Your task to perform on an android device: Clear the cart on target. Add "macbook pro" to the cart on target, then select checkout. Image 0: 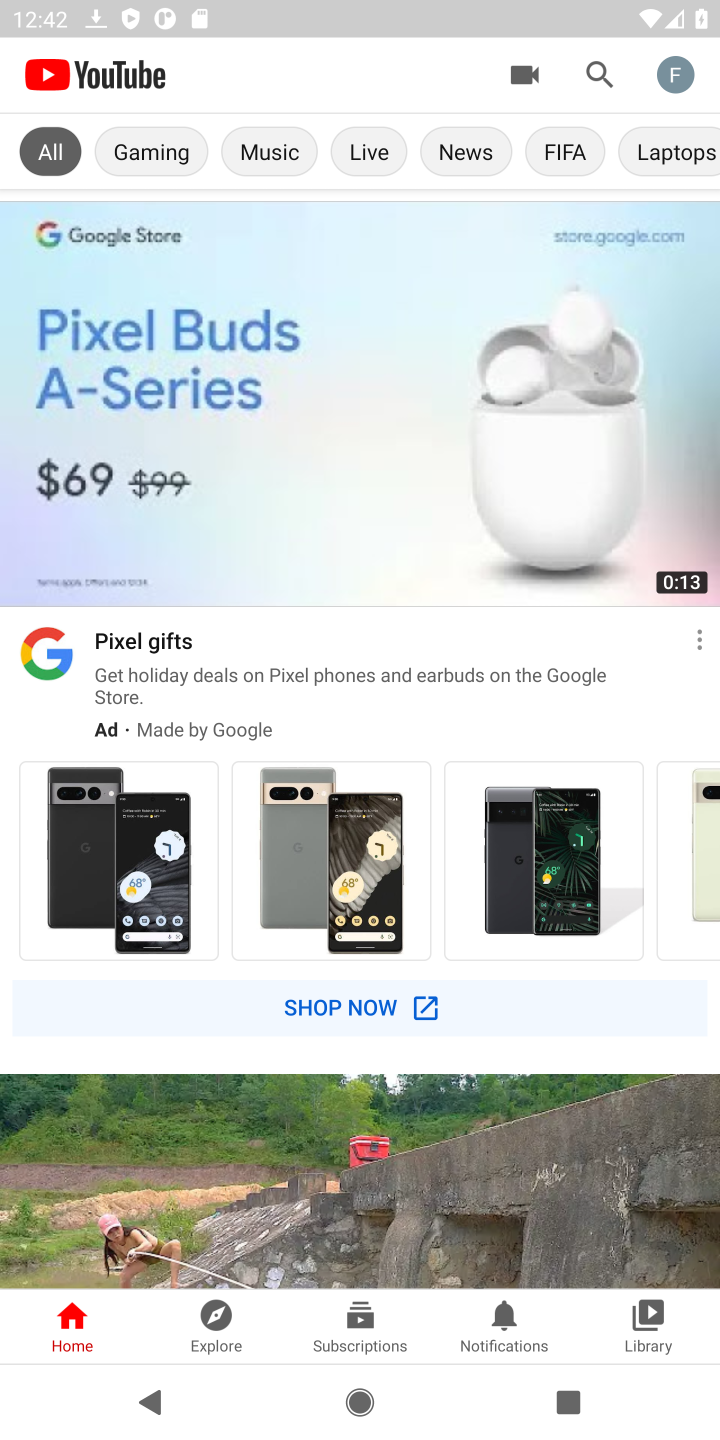
Step 0: press home button
Your task to perform on an android device: Clear the cart on target. Add "macbook pro" to the cart on target, then select checkout. Image 1: 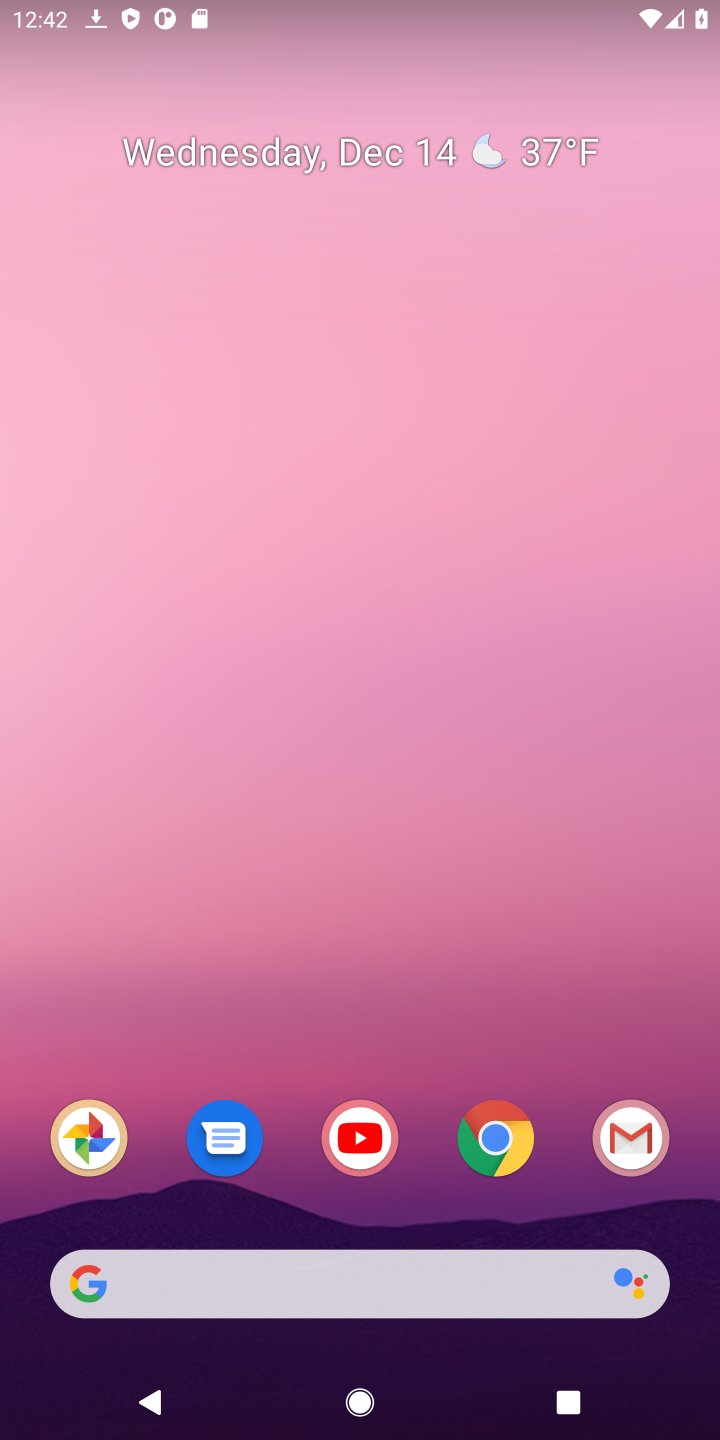
Step 1: click (500, 1140)
Your task to perform on an android device: Clear the cart on target. Add "macbook pro" to the cart on target, then select checkout. Image 2: 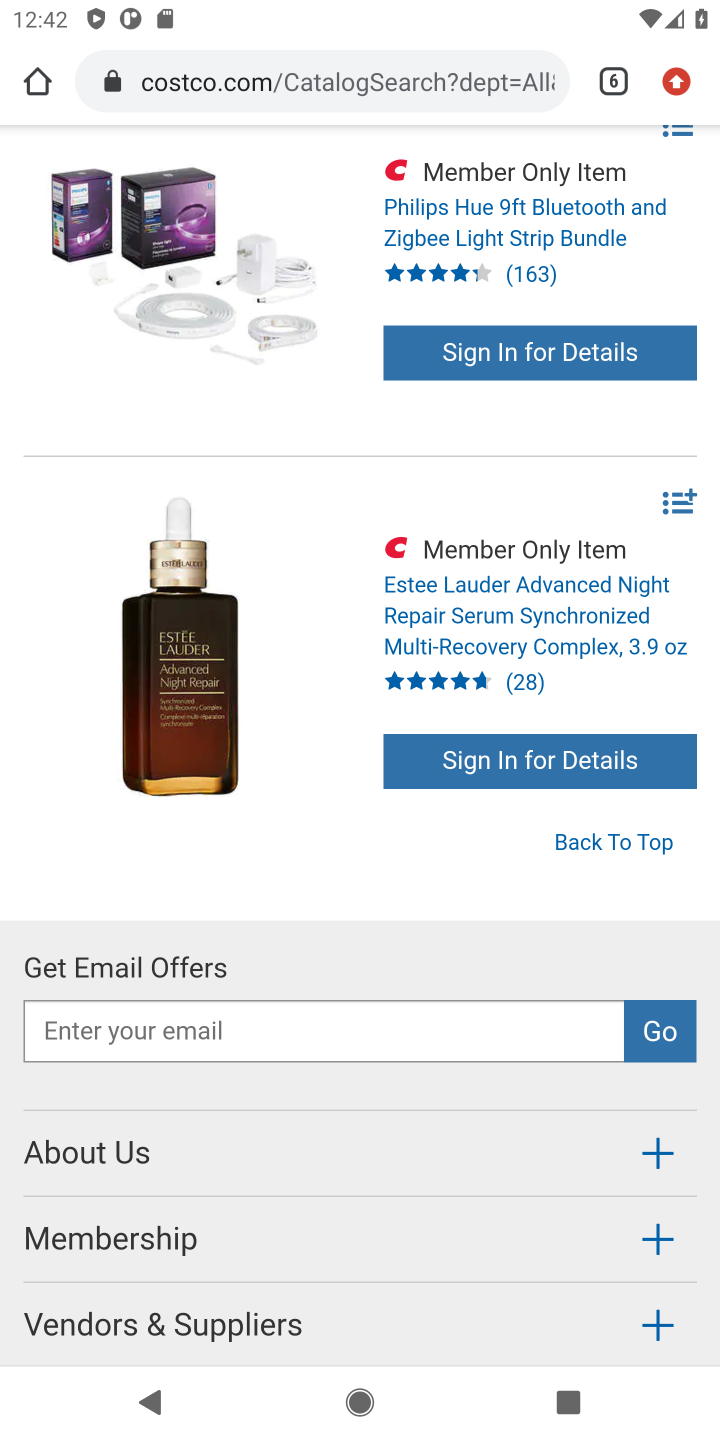
Step 2: click (600, 76)
Your task to perform on an android device: Clear the cart on target. Add "macbook pro" to the cart on target, then select checkout. Image 3: 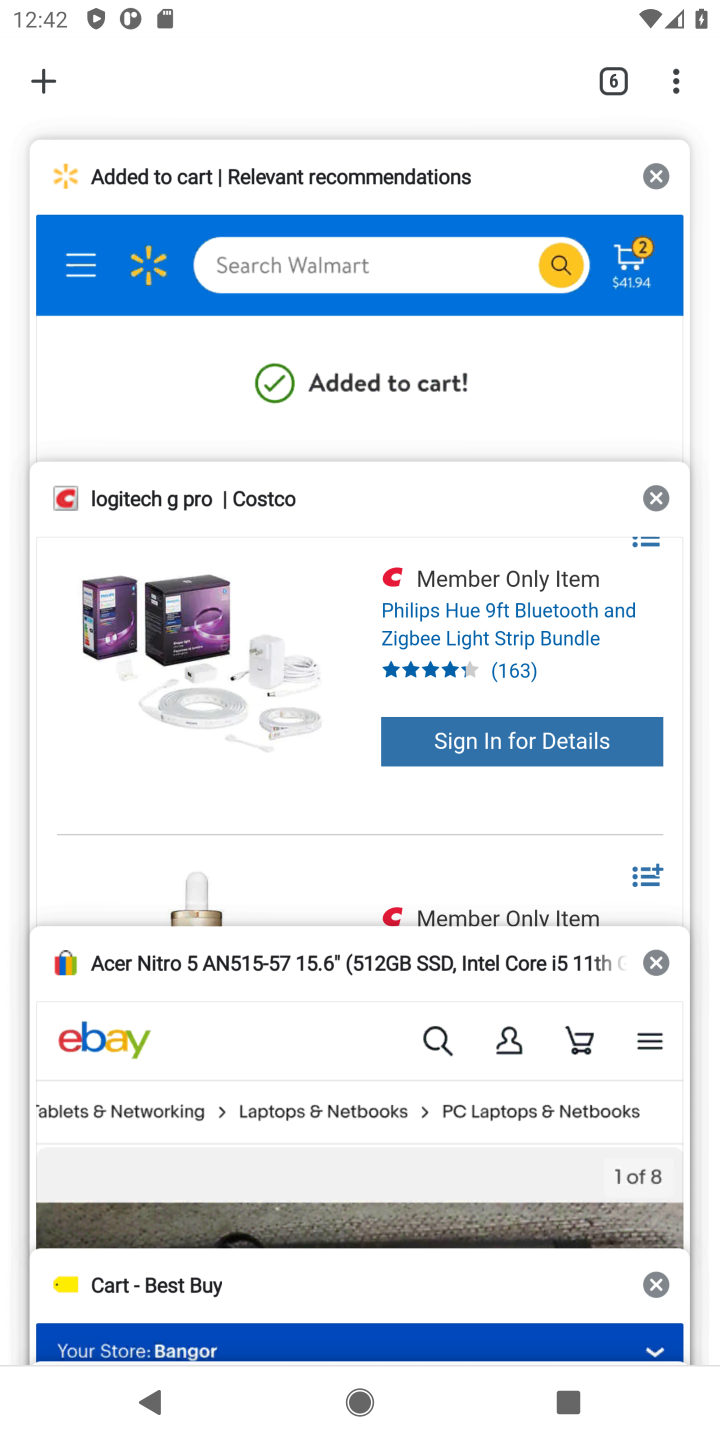
Step 3: drag from (200, 1317) to (294, 719)
Your task to perform on an android device: Clear the cart on target. Add "macbook pro" to the cart on target, then select checkout. Image 4: 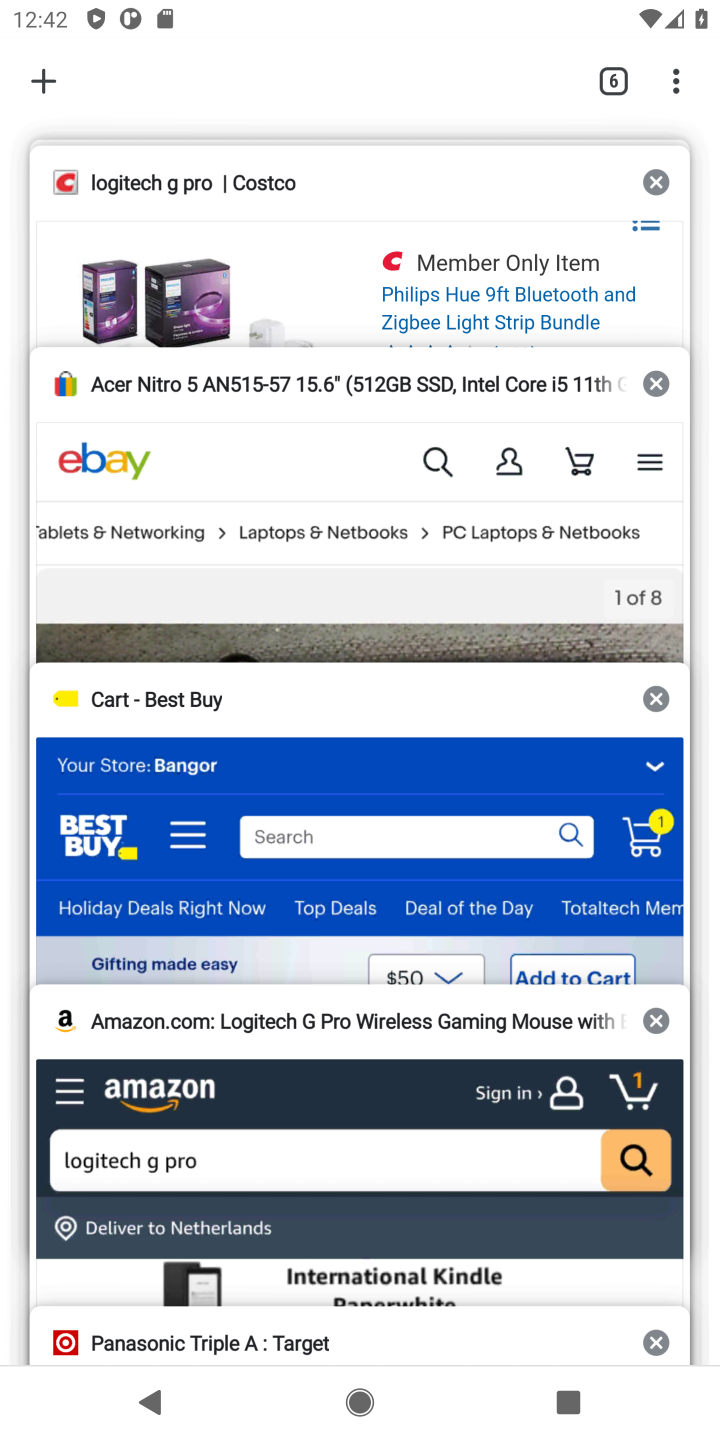
Step 4: drag from (306, 1264) to (459, 868)
Your task to perform on an android device: Clear the cart on target. Add "macbook pro" to the cart on target, then select checkout. Image 5: 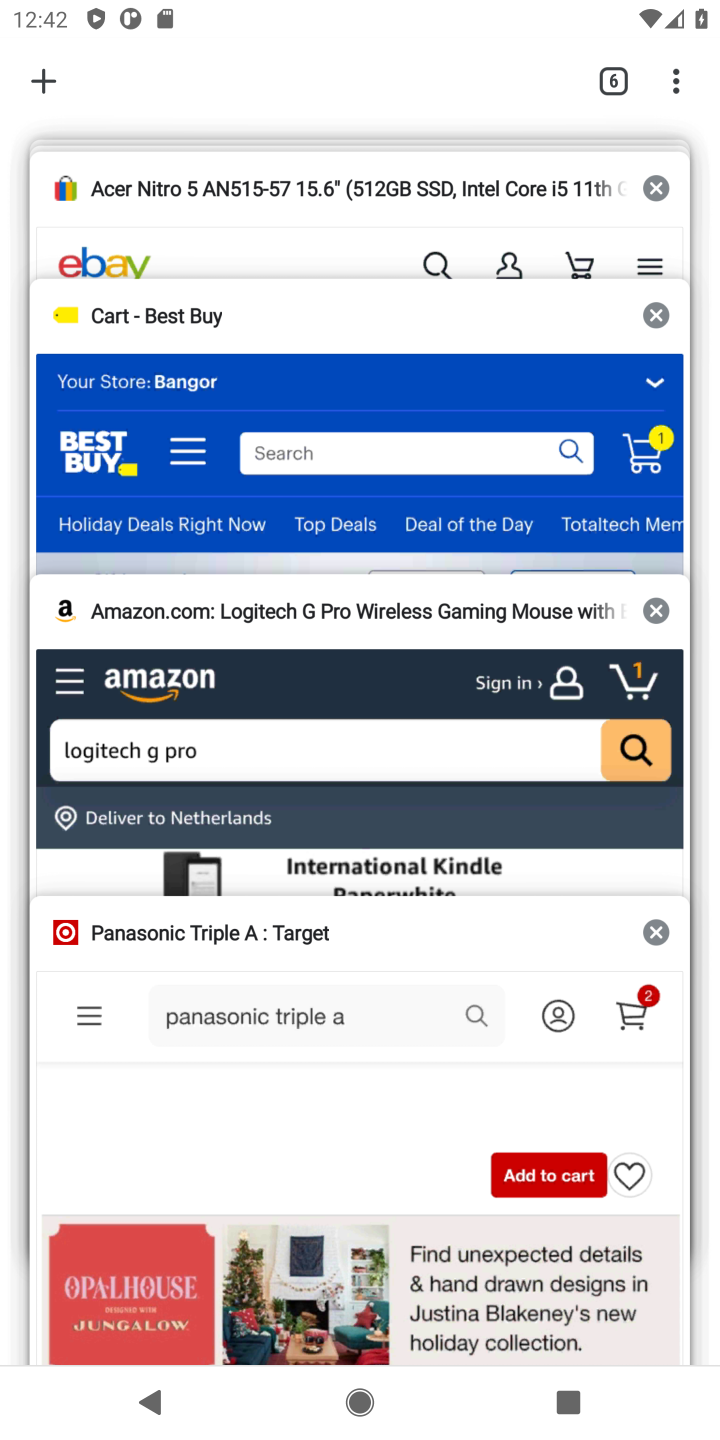
Step 5: click (321, 1080)
Your task to perform on an android device: Clear the cart on target. Add "macbook pro" to the cart on target, then select checkout. Image 6: 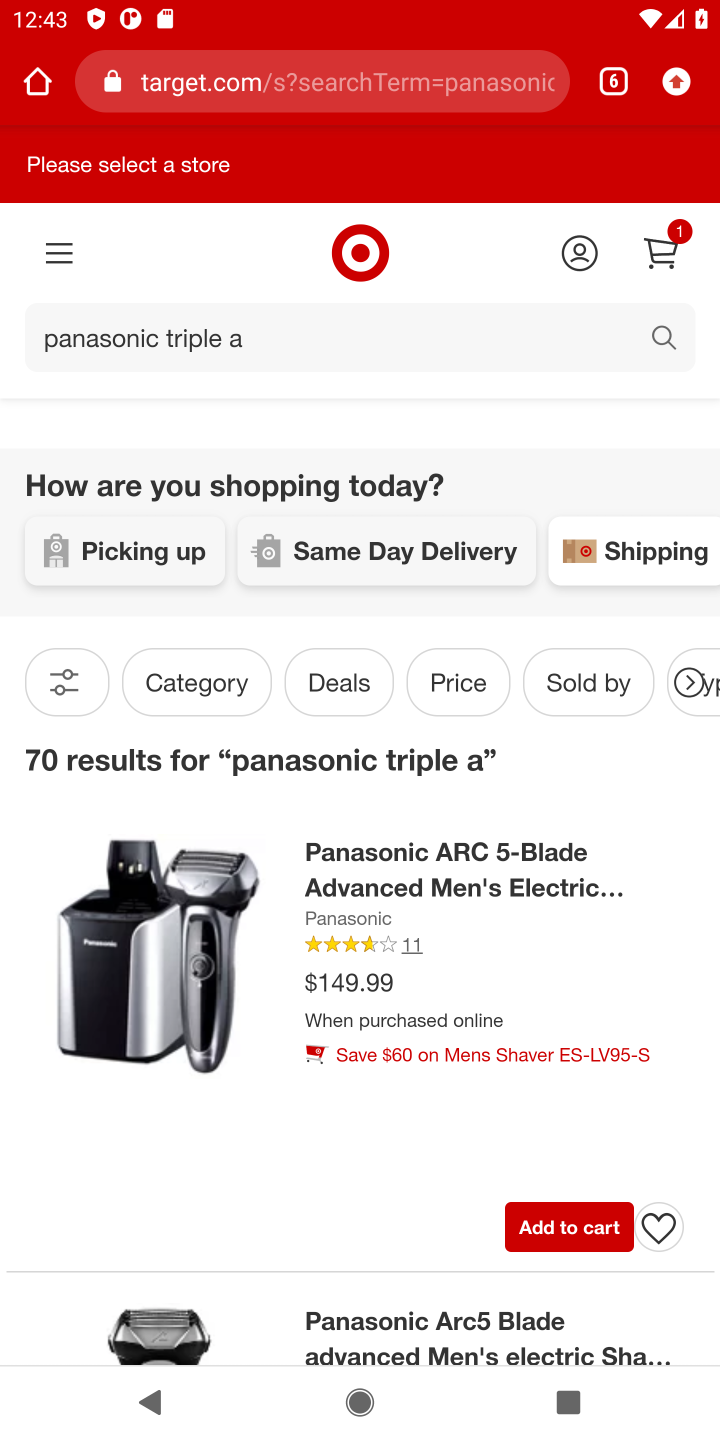
Step 6: click (673, 231)
Your task to perform on an android device: Clear the cart on target. Add "macbook pro" to the cart on target, then select checkout. Image 7: 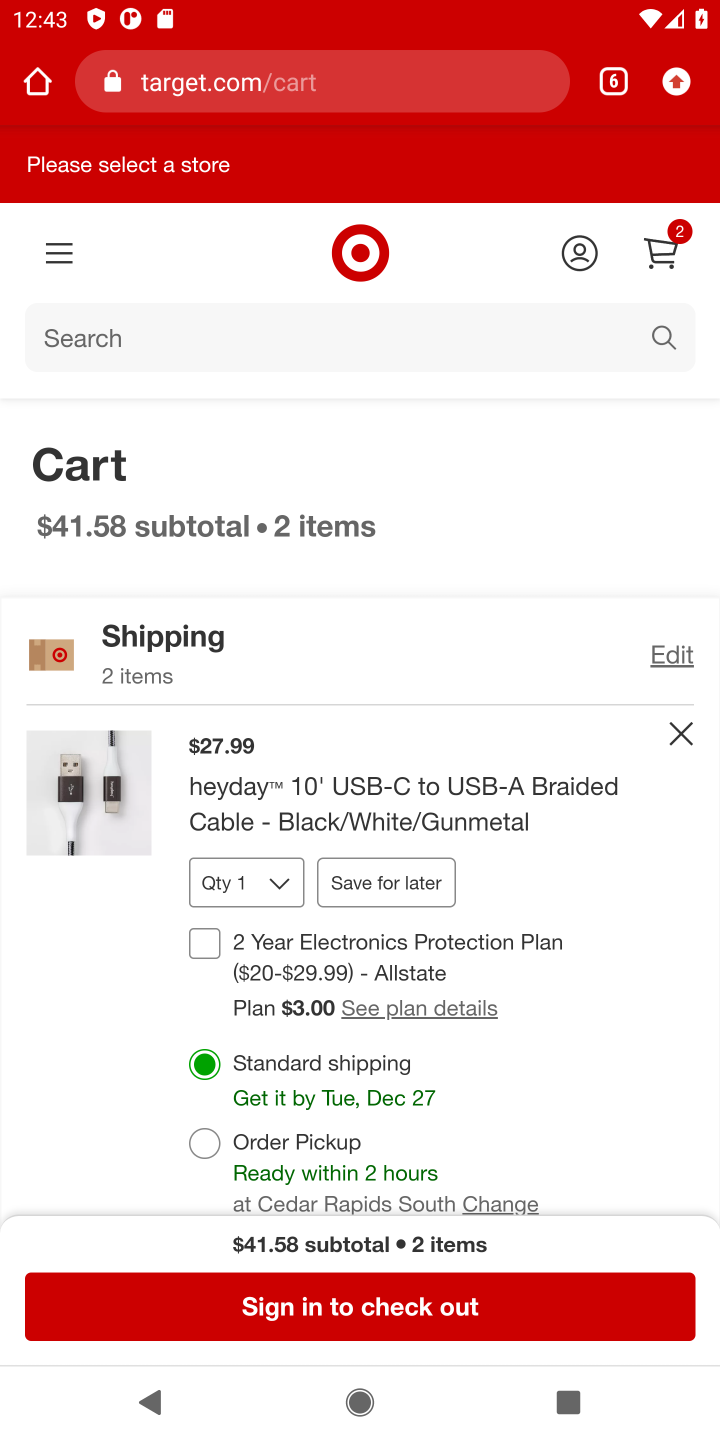
Step 7: click (682, 735)
Your task to perform on an android device: Clear the cart on target. Add "macbook pro" to the cart on target, then select checkout. Image 8: 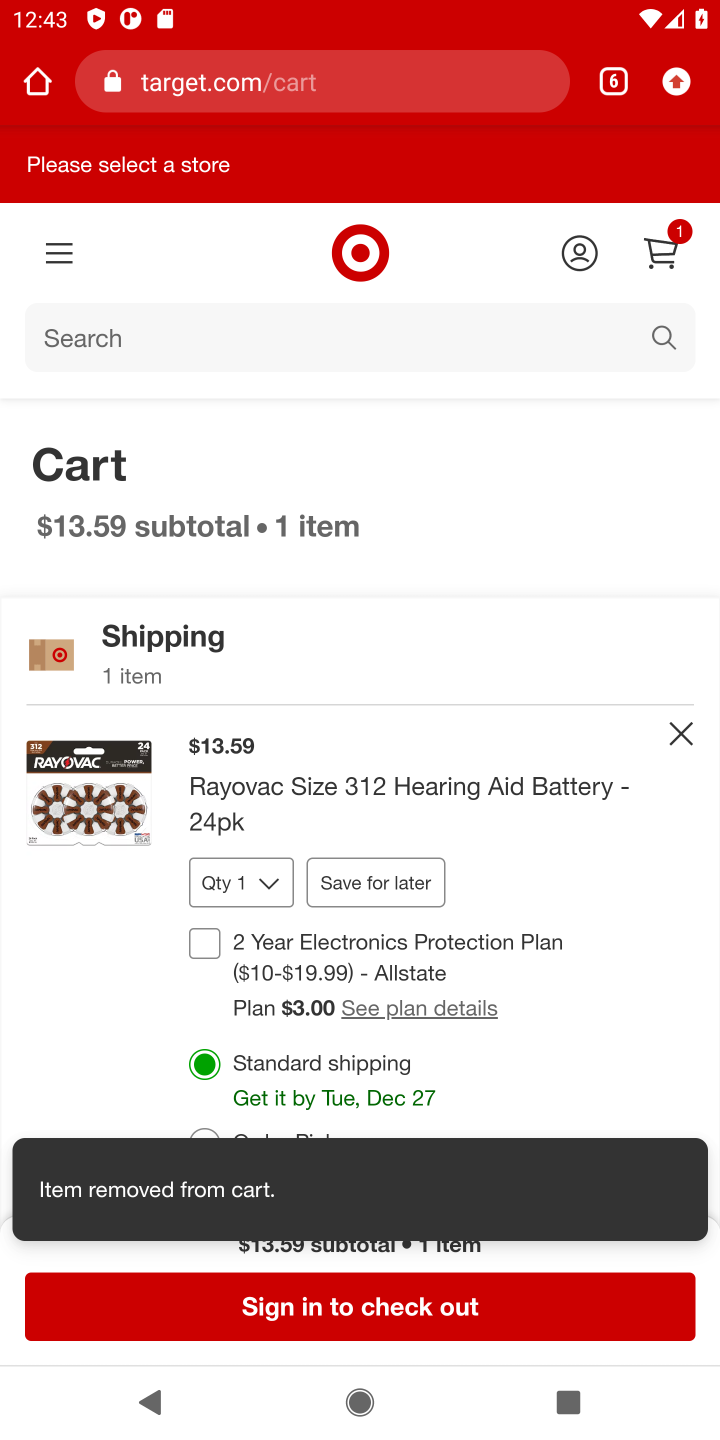
Step 8: click (678, 734)
Your task to perform on an android device: Clear the cart on target. Add "macbook pro" to the cart on target, then select checkout. Image 9: 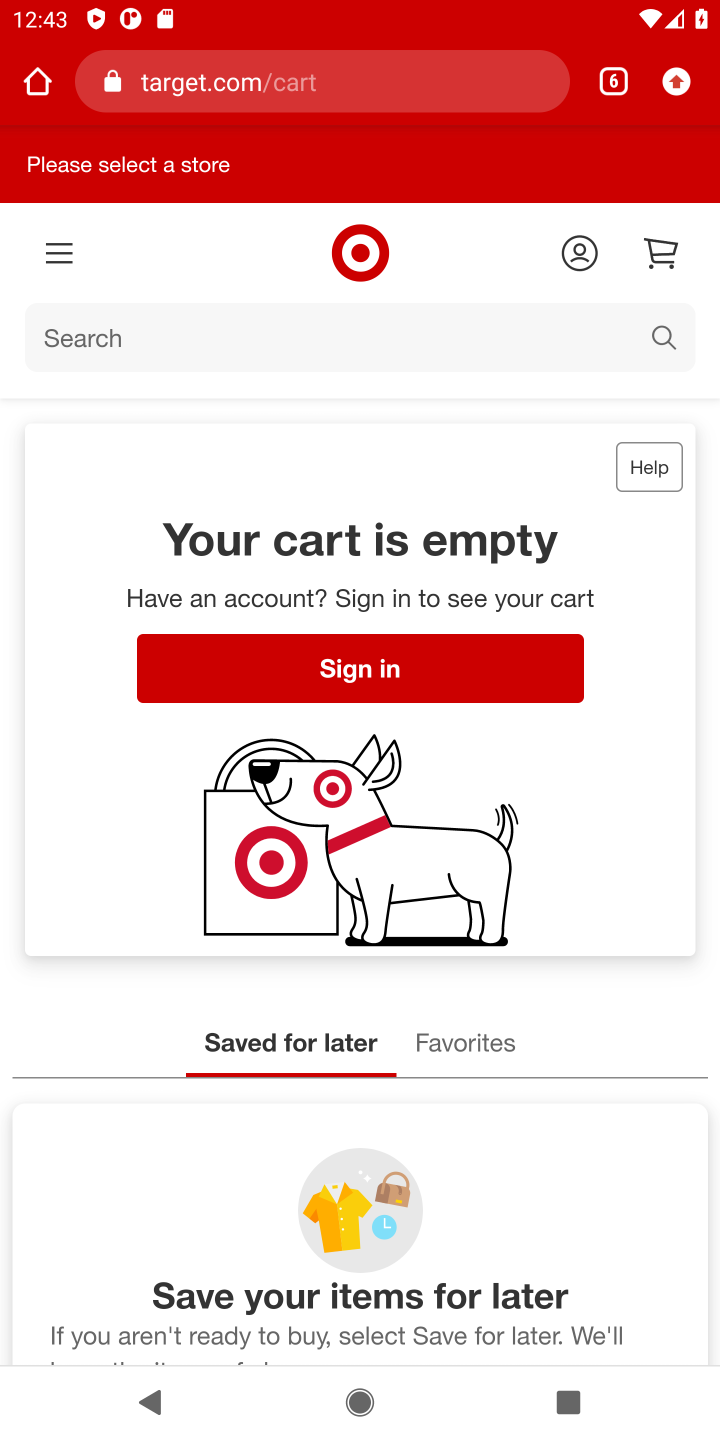
Step 9: click (180, 328)
Your task to perform on an android device: Clear the cart on target. Add "macbook pro" to the cart on target, then select checkout. Image 10: 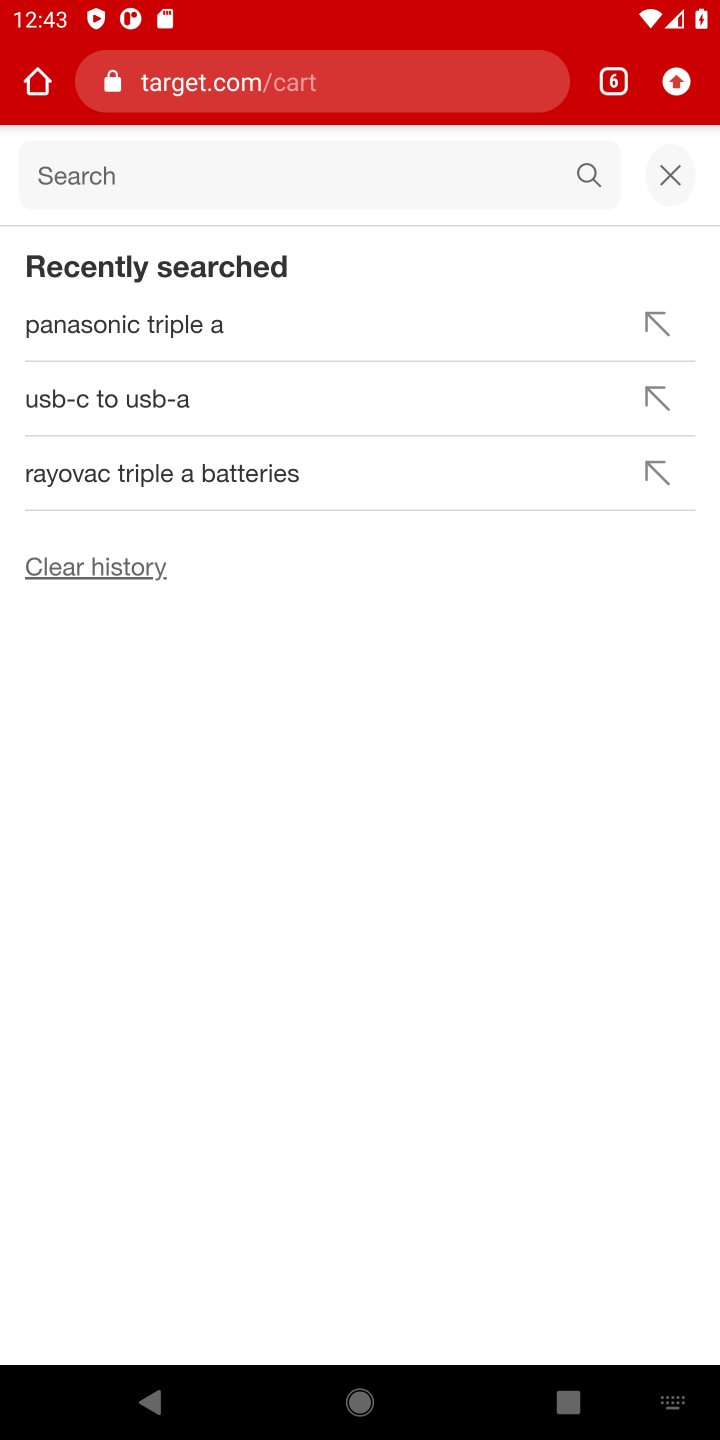
Step 10: type "macbook pro"
Your task to perform on an android device: Clear the cart on target. Add "macbook pro" to the cart on target, then select checkout. Image 11: 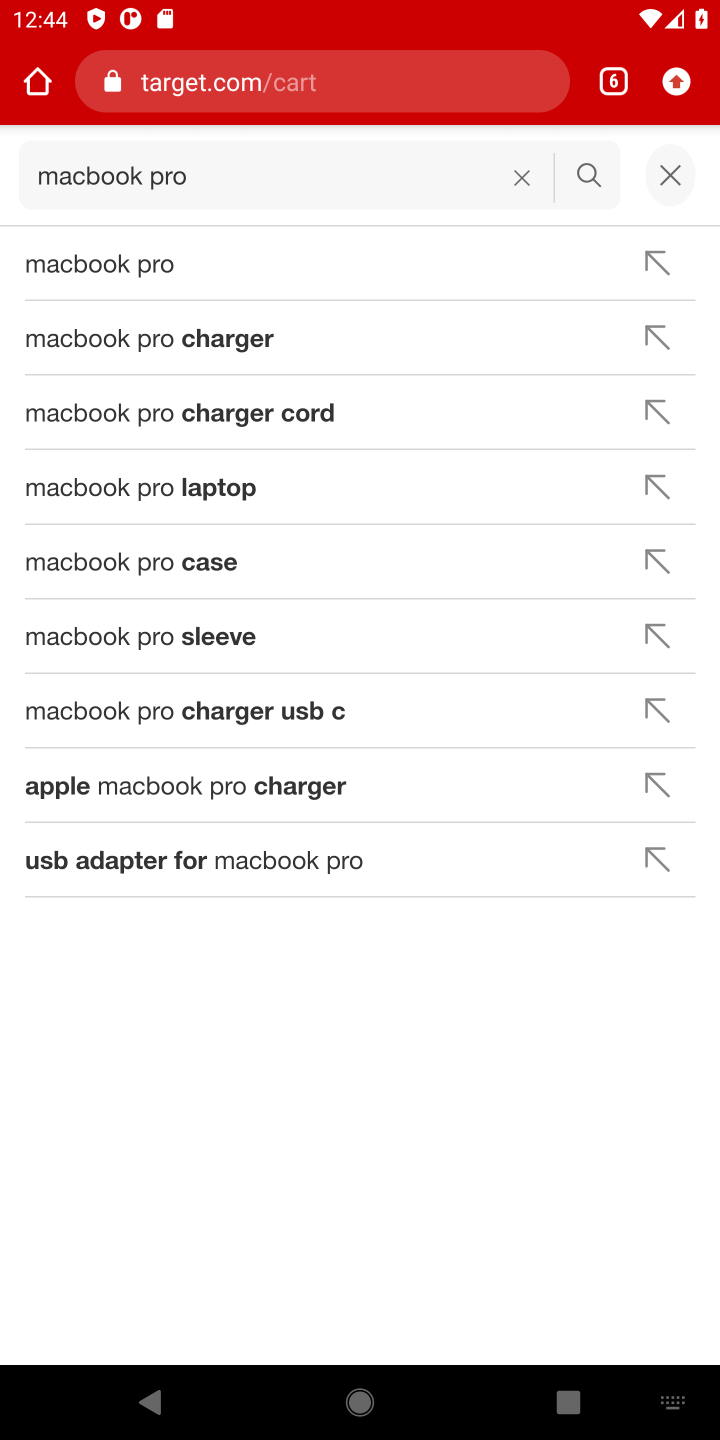
Step 11: click (146, 259)
Your task to perform on an android device: Clear the cart on target. Add "macbook pro" to the cart on target, then select checkout. Image 12: 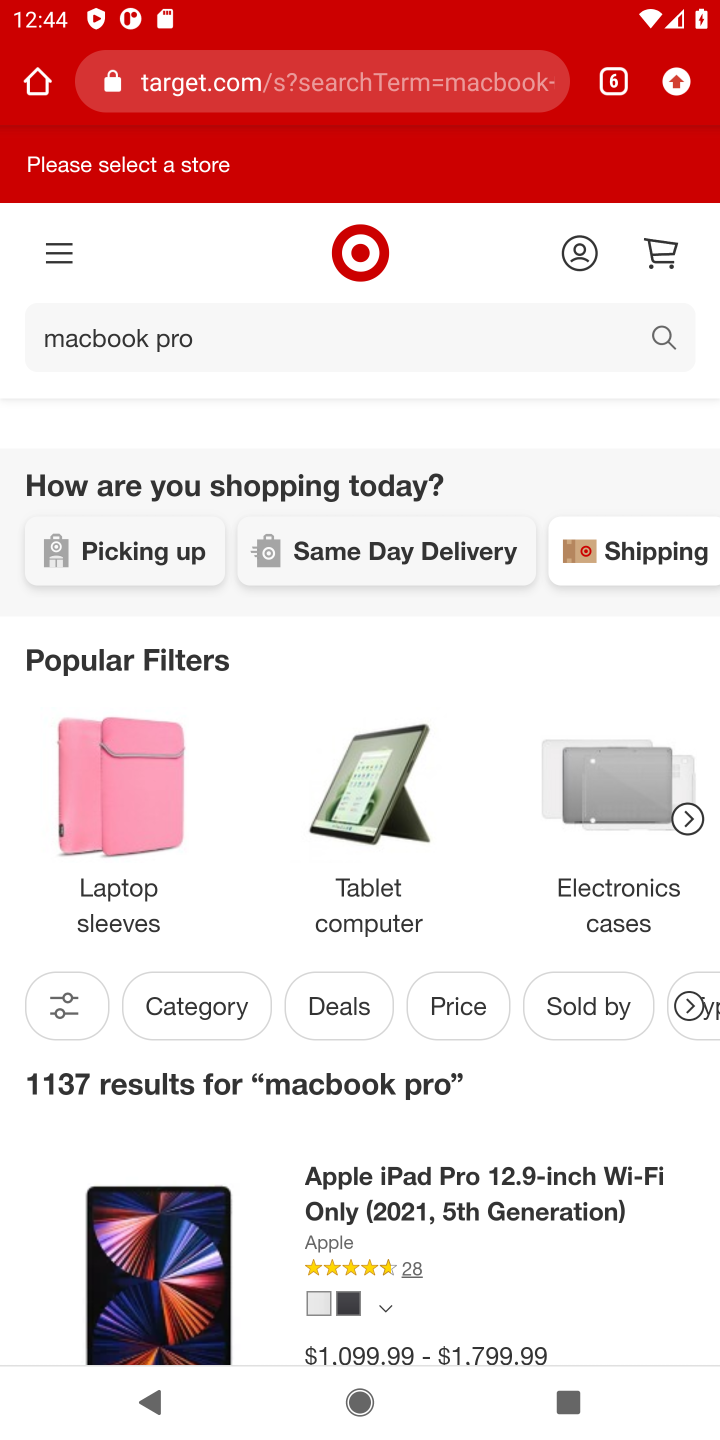
Step 12: task complete